Your task to perform on an android device: toggle pop-ups in chrome Image 0: 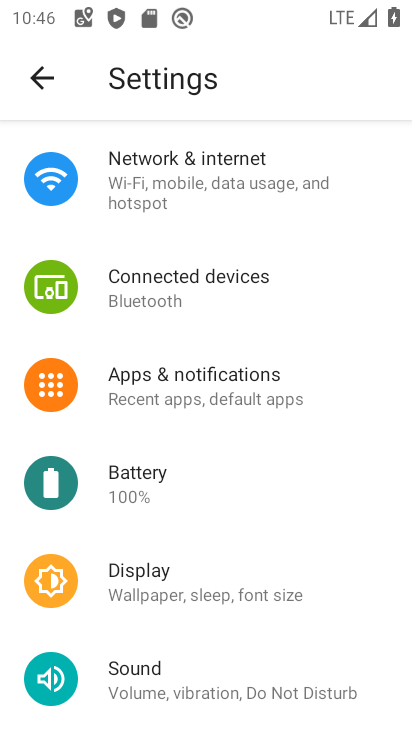
Step 0: press home button
Your task to perform on an android device: toggle pop-ups in chrome Image 1: 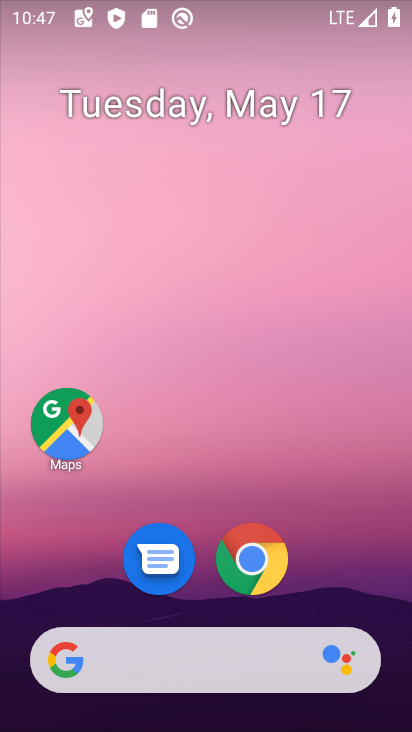
Step 1: click (247, 571)
Your task to perform on an android device: toggle pop-ups in chrome Image 2: 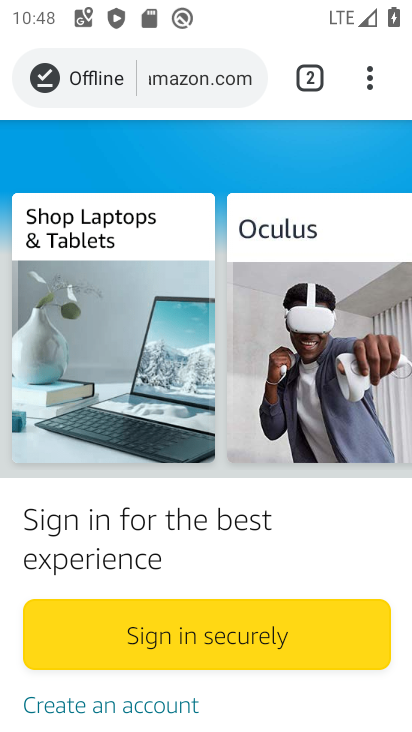
Step 2: click (375, 81)
Your task to perform on an android device: toggle pop-ups in chrome Image 3: 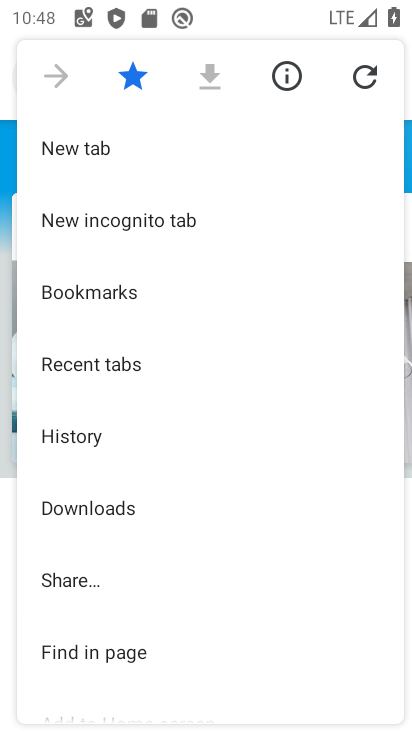
Step 3: drag from (220, 673) to (195, 279)
Your task to perform on an android device: toggle pop-ups in chrome Image 4: 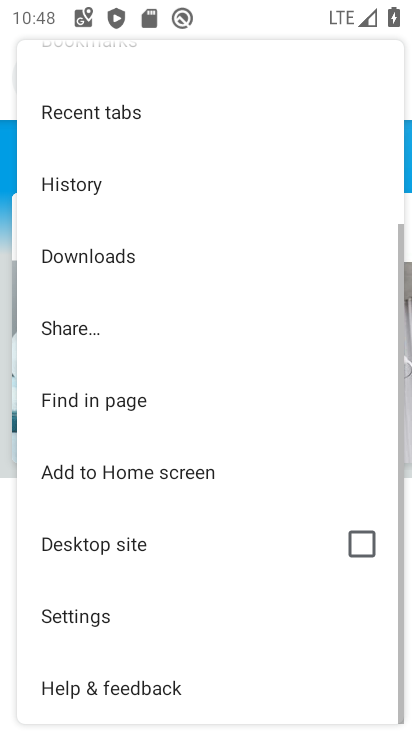
Step 4: click (103, 611)
Your task to perform on an android device: toggle pop-ups in chrome Image 5: 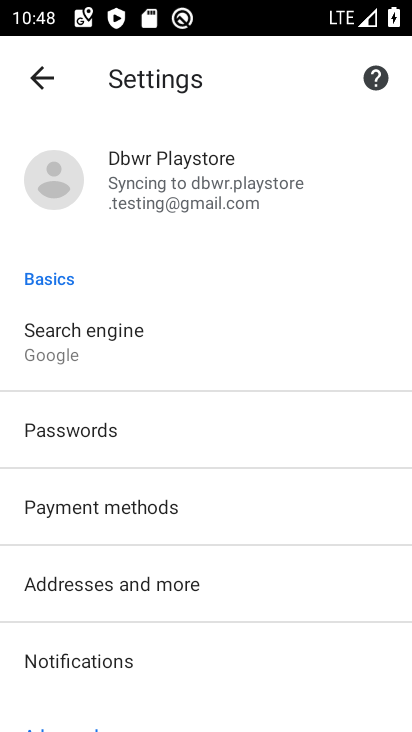
Step 5: drag from (281, 651) to (294, 236)
Your task to perform on an android device: toggle pop-ups in chrome Image 6: 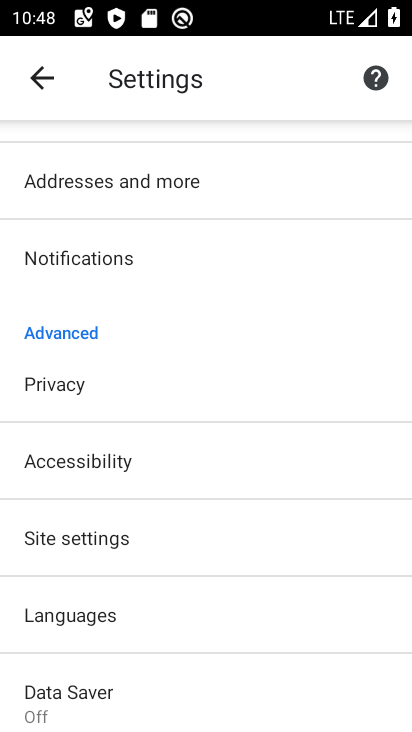
Step 6: click (120, 527)
Your task to perform on an android device: toggle pop-ups in chrome Image 7: 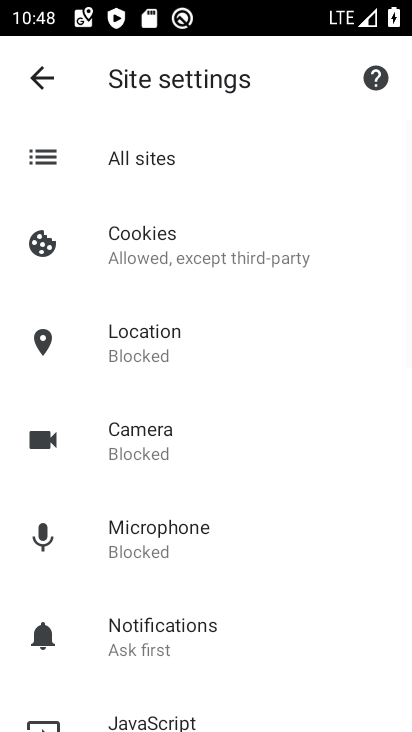
Step 7: drag from (272, 716) to (266, 269)
Your task to perform on an android device: toggle pop-ups in chrome Image 8: 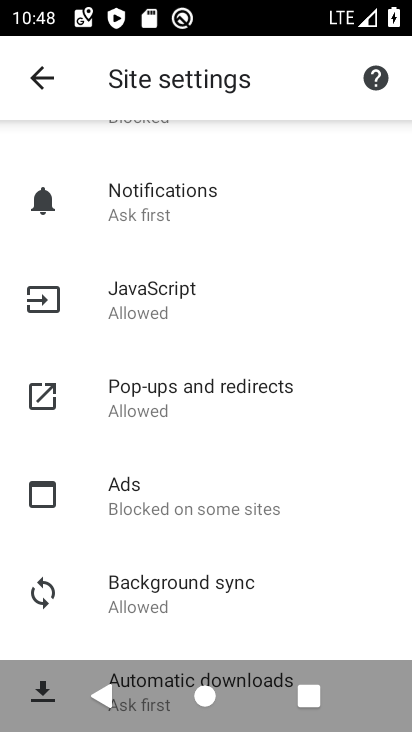
Step 8: click (209, 386)
Your task to perform on an android device: toggle pop-ups in chrome Image 9: 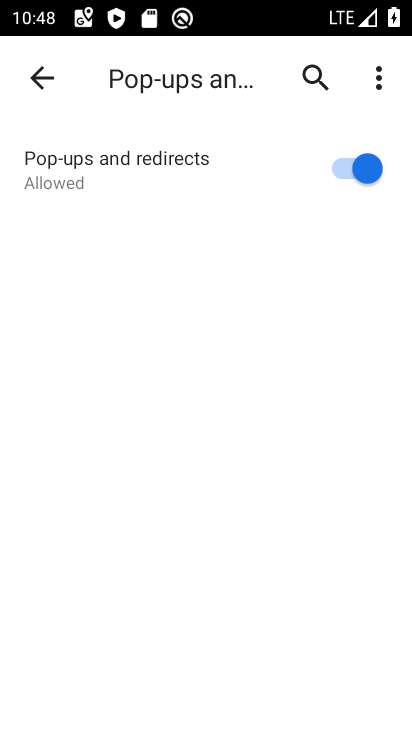
Step 9: click (356, 177)
Your task to perform on an android device: toggle pop-ups in chrome Image 10: 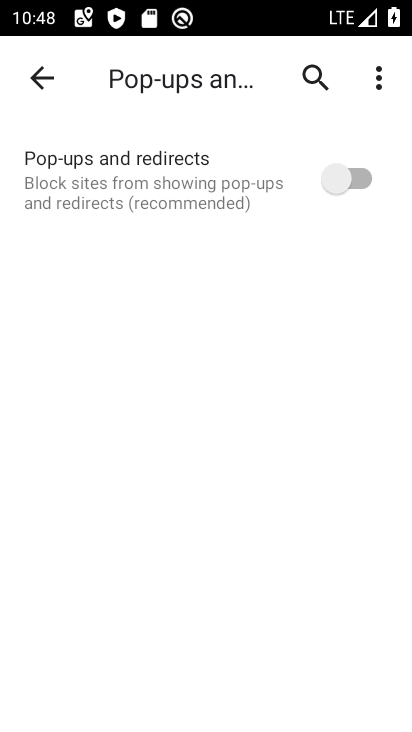
Step 10: task complete